Your task to perform on an android device: Toggle the flashlight Image 0: 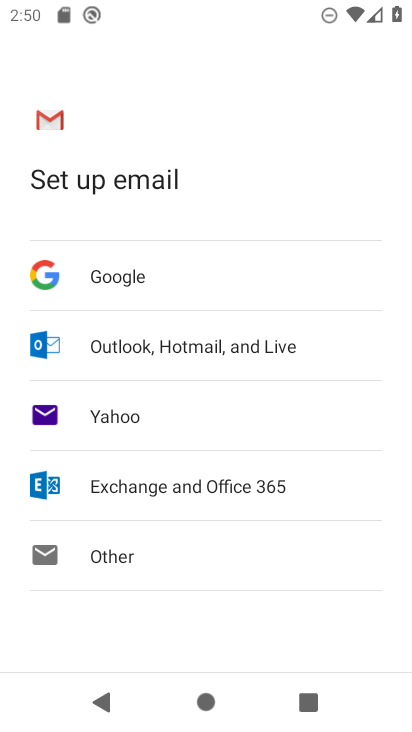
Step 0: press back button
Your task to perform on an android device: Toggle the flashlight Image 1: 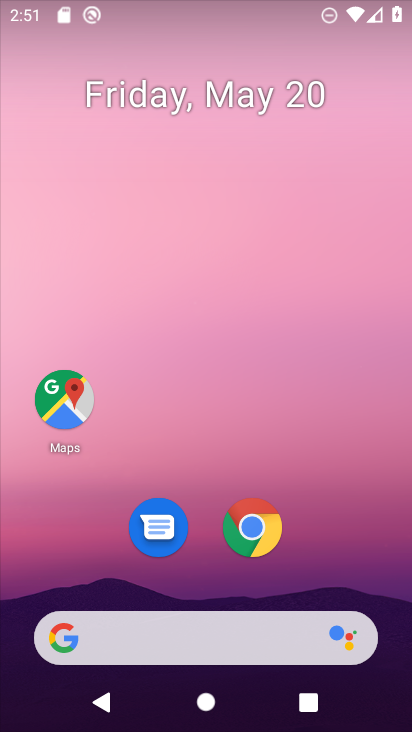
Step 1: drag from (236, 623) to (339, 43)
Your task to perform on an android device: Toggle the flashlight Image 2: 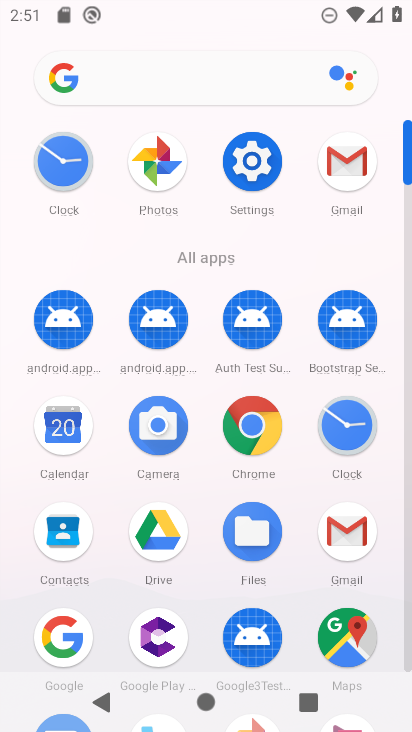
Step 2: click (266, 150)
Your task to perform on an android device: Toggle the flashlight Image 3: 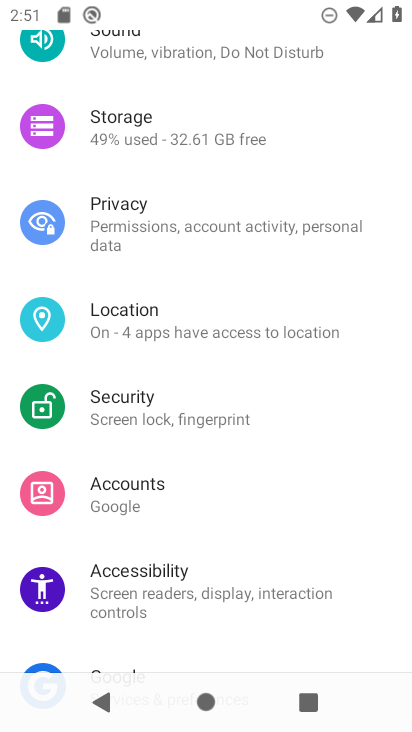
Step 3: drag from (172, 142) to (152, 677)
Your task to perform on an android device: Toggle the flashlight Image 4: 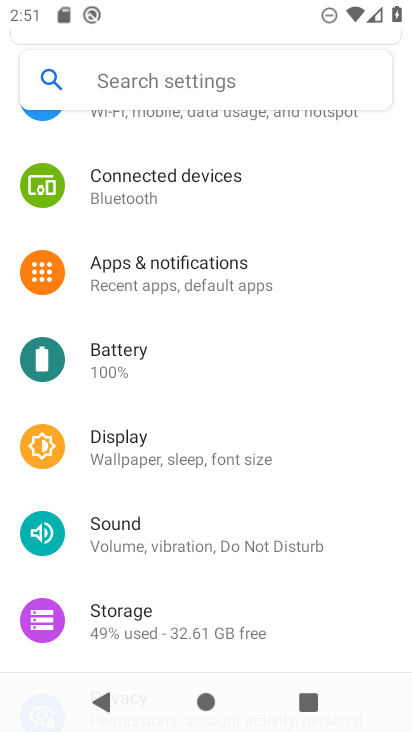
Step 4: click (143, 86)
Your task to perform on an android device: Toggle the flashlight Image 5: 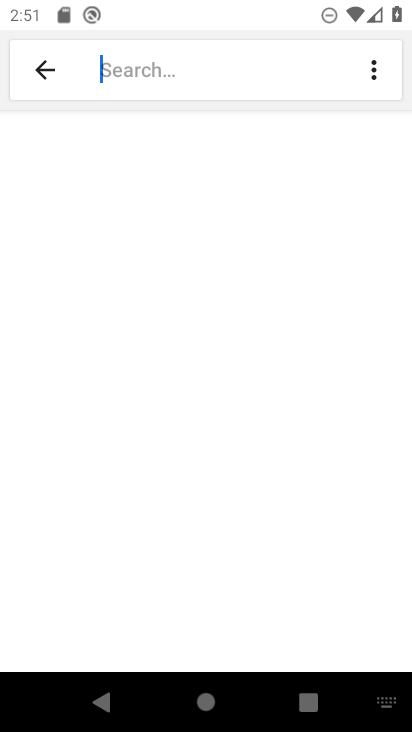
Step 5: type "flashlight"
Your task to perform on an android device: Toggle the flashlight Image 6: 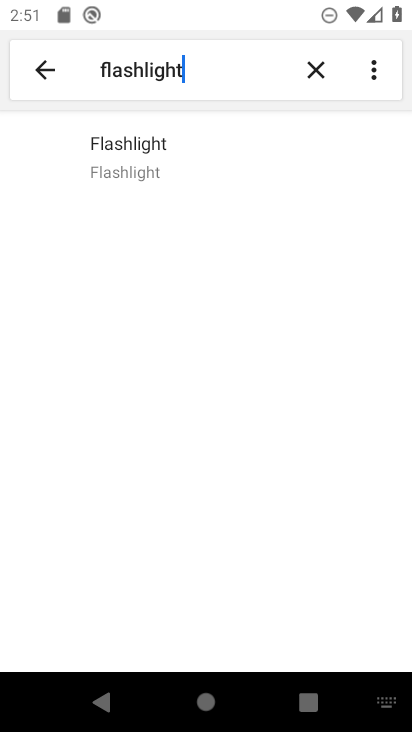
Step 6: click (134, 158)
Your task to perform on an android device: Toggle the flashlight Image 7: 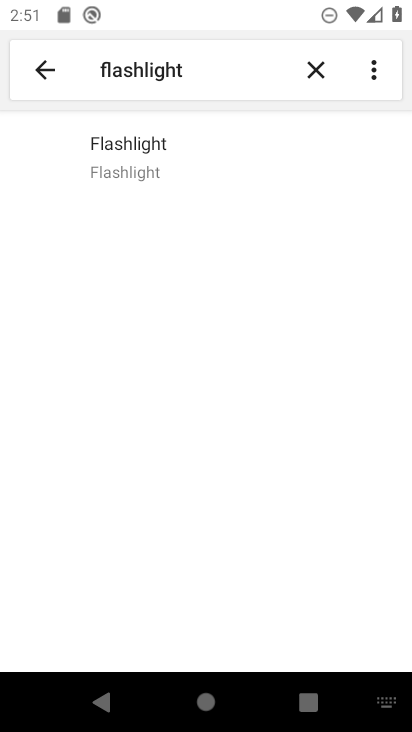
Step 7: task complete